Your task to perform on an android device: turn off airplane mode Image 0: 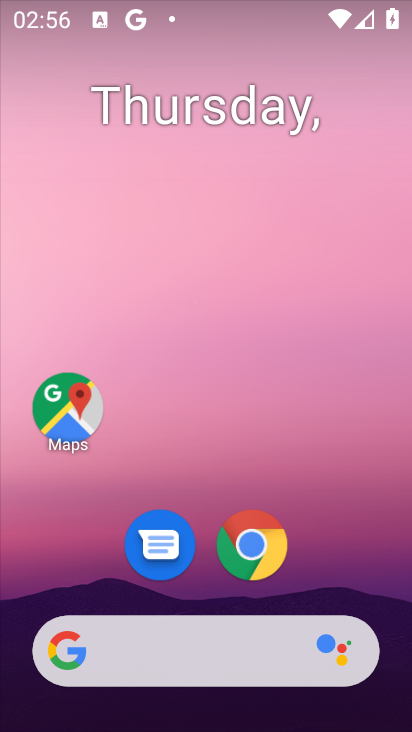
Step 0: drag from (271, 709) to (225, 155)
Your task to perform on an android device: turn off airplane mode Image 1: 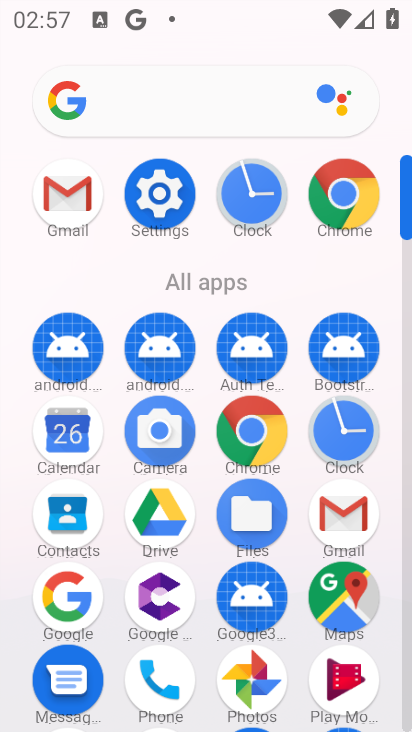
Step 1: click (160, 179)
Your task to perform on an android device: turn off airplane mode Image 2: 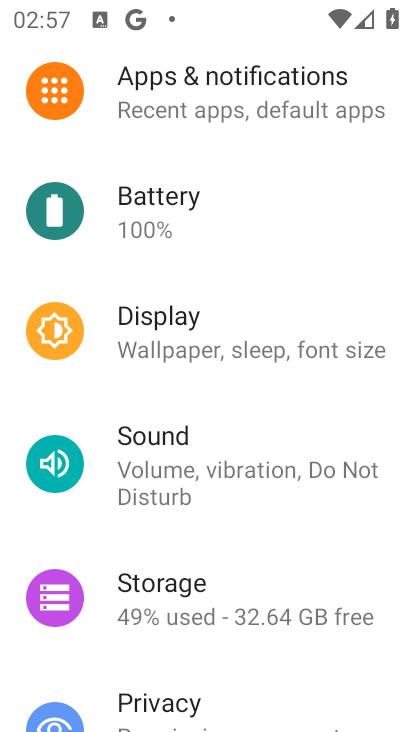
Step 2: drag from (326, 116) to (308, 576)
Your task to perform on an android device: turn off airplane mode Image 3: 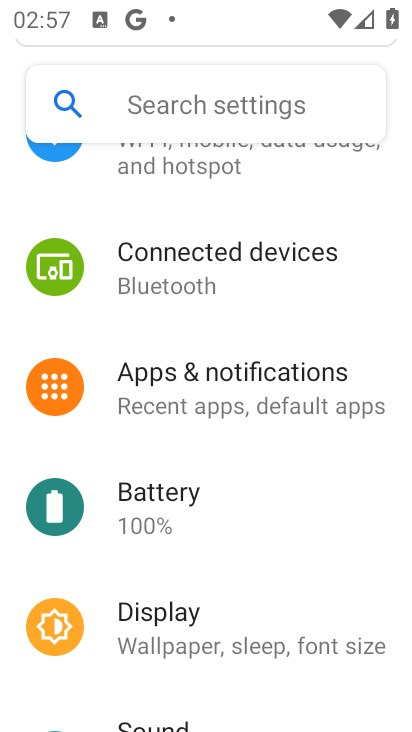
Step 3: click (290, 157)
Your task to perform on an android device: turn off airplane mode Image 4: 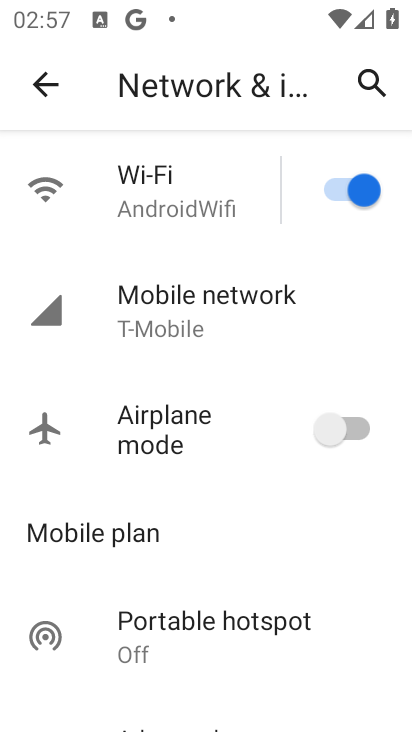
Step 4: task complete